Your task to perform on an android device: make emails show in primary in the gmail app Image 0: 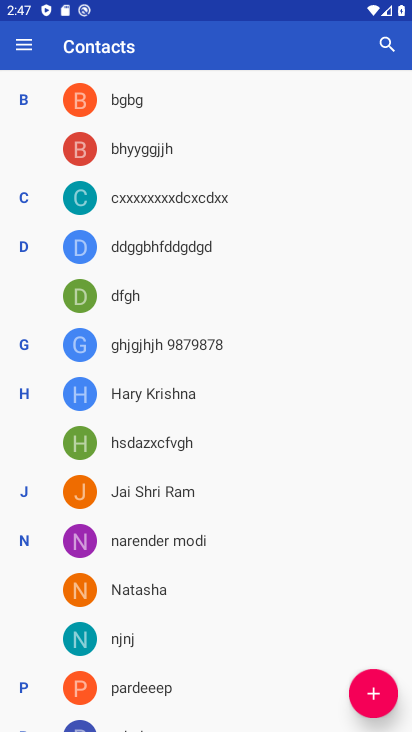
Step 0: press back button
Your task to perform on an android device: make emails show in primary in the gmail app Image 1: 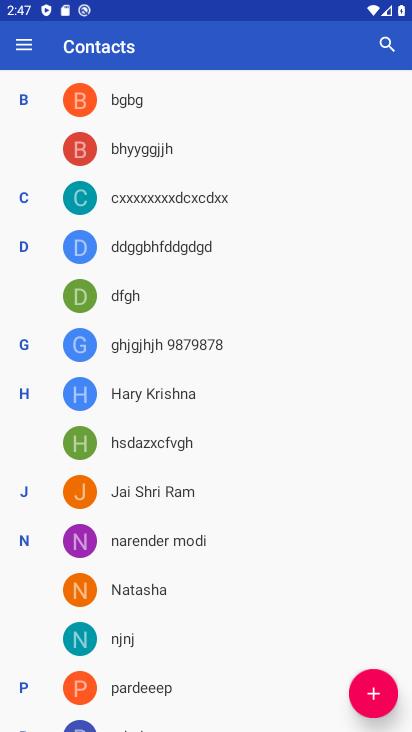
Step 1: press back button
Your task to perform on an android device: make emails show in primary in the gmail app Image 2: 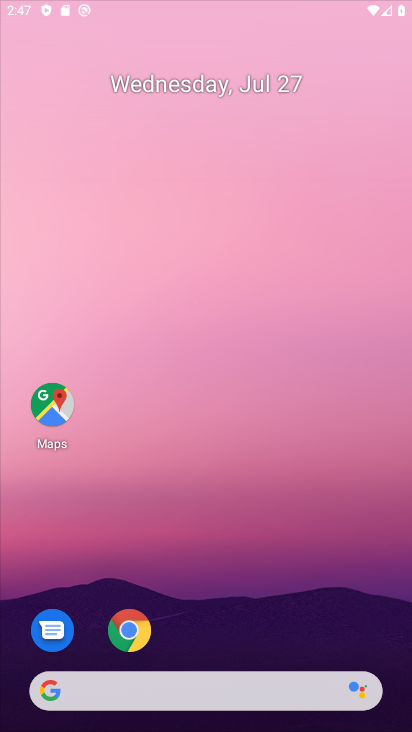
Step 2: press back button
Your task to perform on an android device: make emails show in primary in the gmail app Image 3: 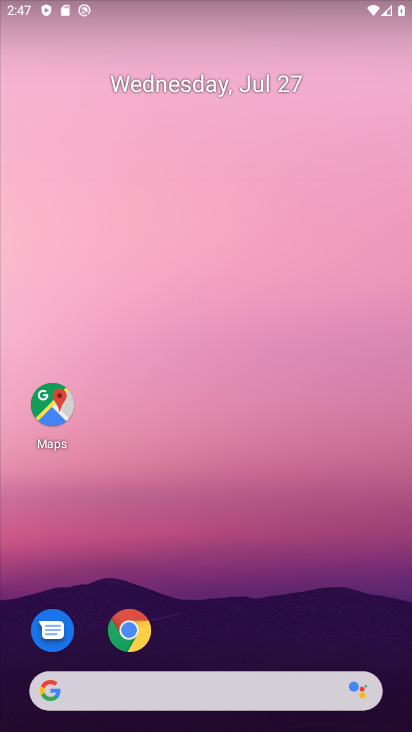
Step 3: drag from (179, 685) to (50, 85)
Your task to perform on an android device: make emails show in primary in the gmail app Image 4: 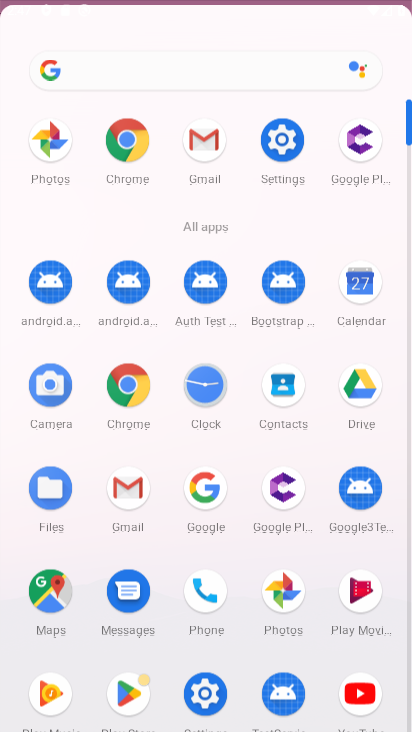
Step 4: drag from (242, 471) to (165, 155)
Your task to perform on an android device: make emails show in primary in the gmail app Image 5: 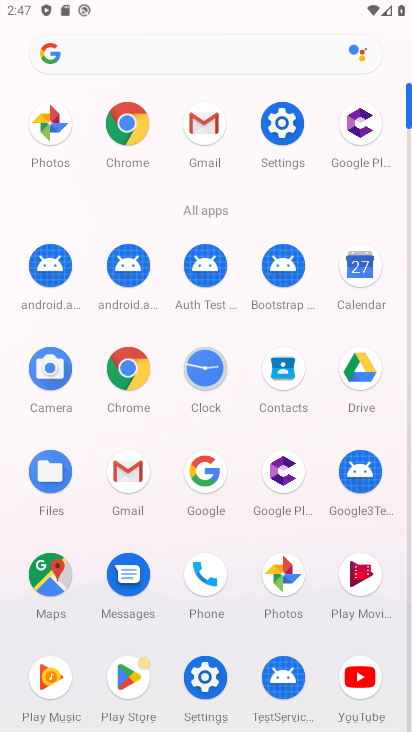
Step 5: click (123, 454)
Your task to perform on an android device: make emails show in primary in the gmail app Image 6: 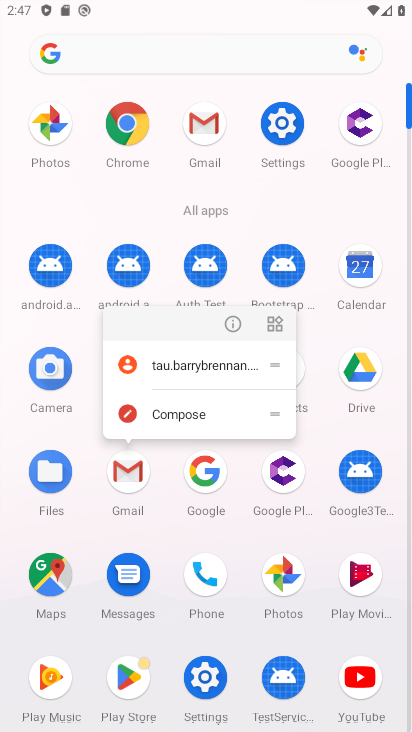
Step 6: click (118, 477)
Your task to perform on an android device: make emails show in primary in the gmail app Image 7: 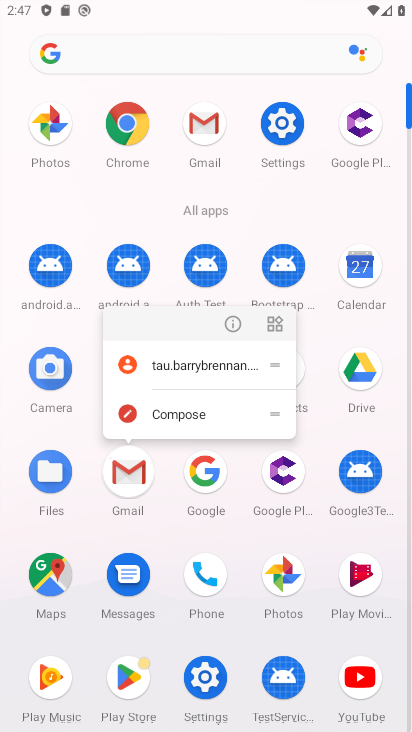
Step 7: click (130, 476)
Your task to perform on an android device: make emails show in primary in the gmail app Image 8: 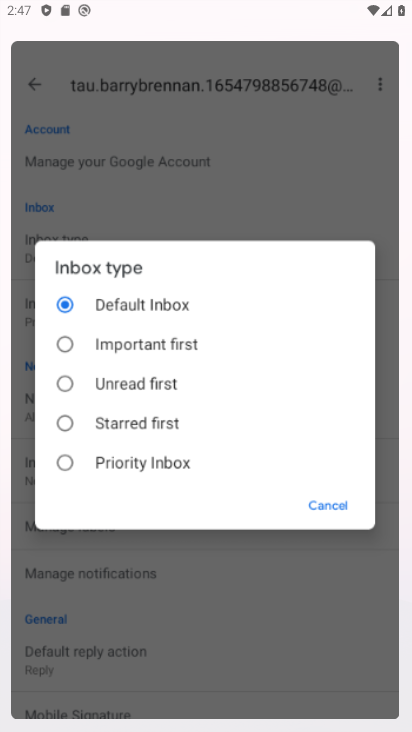
Step 8: click (132, 473)
Your task to perform on an android device: make emails show in primary in the gmail app Image 9: 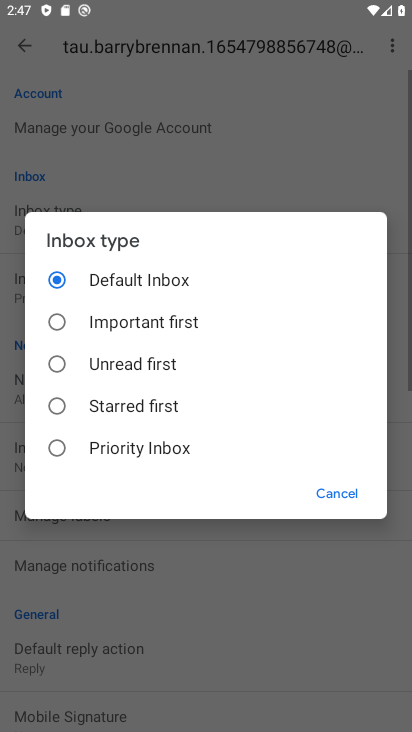
Step 9: click (130, 471)
Your task to perform on an android device: make emails show in primary in the gmail app Image 10: 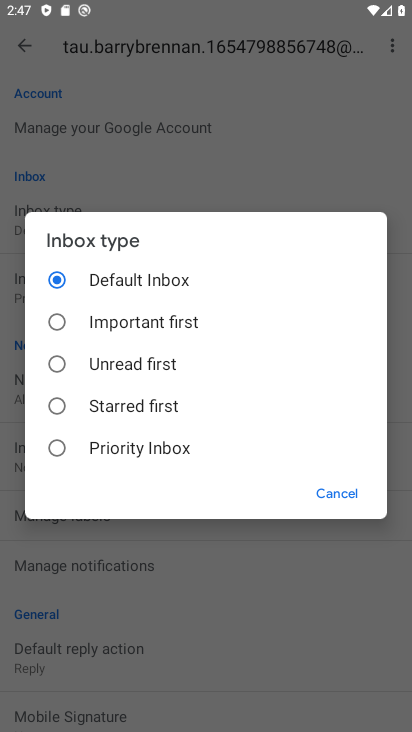
Step 10: click (336, 483)
Your task to perform on an android device: make emails show in primary in the gmail app Image 11: 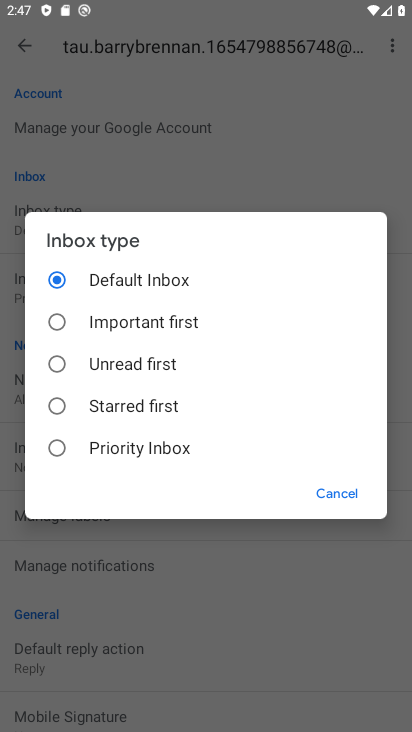
Step 11: click (335, 484)
Your task to perform on an android device: make emails show in primary in the gmail app Image 12: 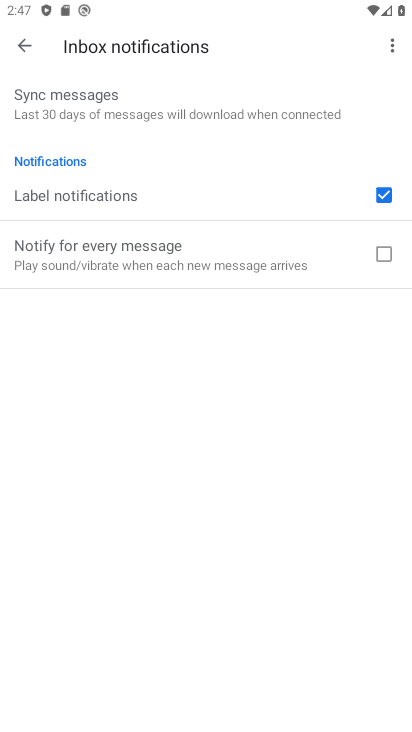
Step 12: click (46, 33)
Your task to perform on an android device: make emails show in primary in the gmail app Image 13: 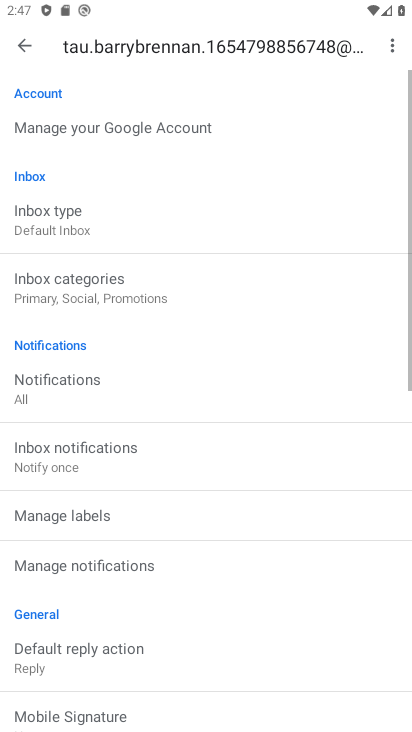
Step 13: task complete